Your task to perform on an android device: Go to accessibility settings Image 0: 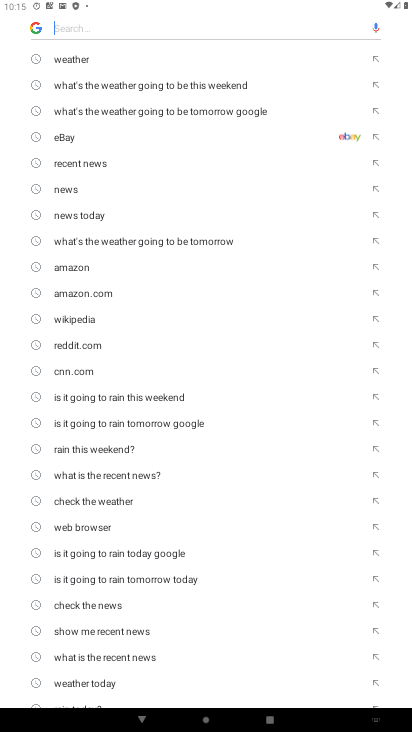
Step 0: press home button
Your task to perform on an android device: Go to accessibility settings Image 1: 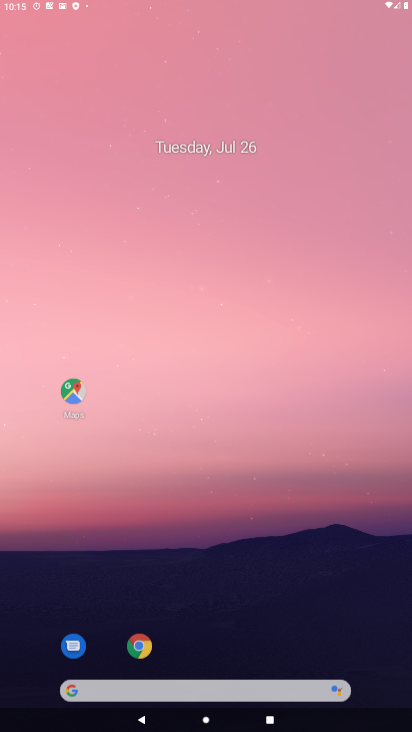
Step 1: drag from (169, 603) to (272, 96)
Your task to perform on an android device: Go to accessibility settings Image 2: 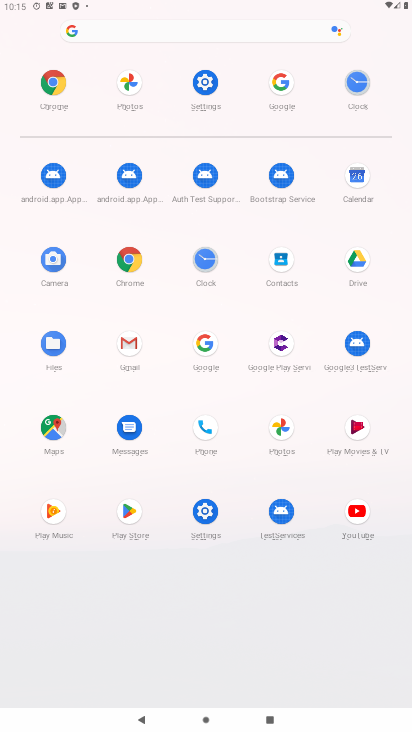
Step 2: click (207, 507)
Your task to perform on an android device: Go to accessibility settings Image 3: 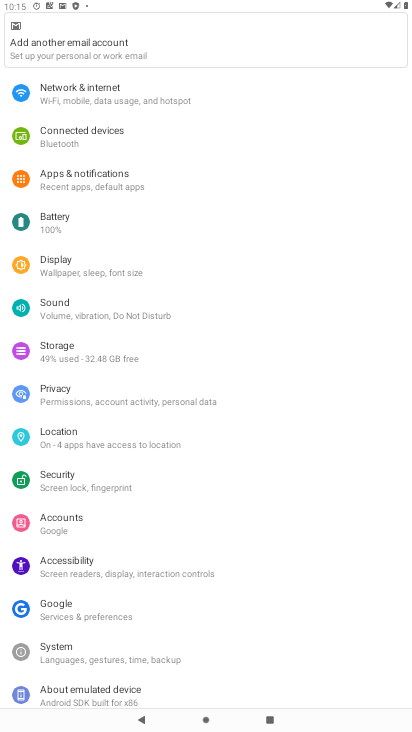
Step 3: click (114, 567)
Your task to perform on an android device: Go to accessibility settings Image 4: 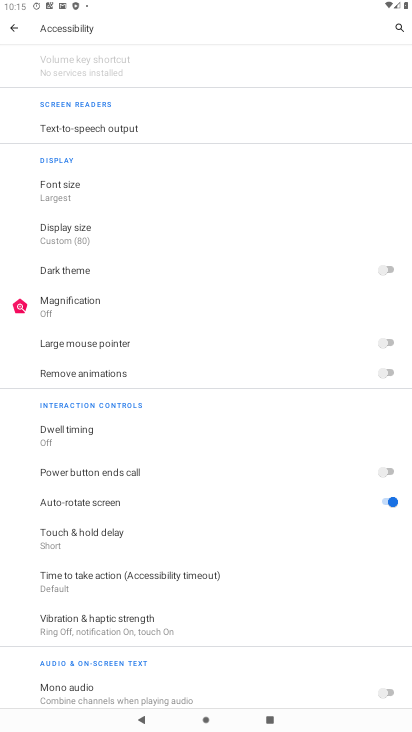
Step 4: task complete